Your task to perform on an android device: Open Google Image 0: 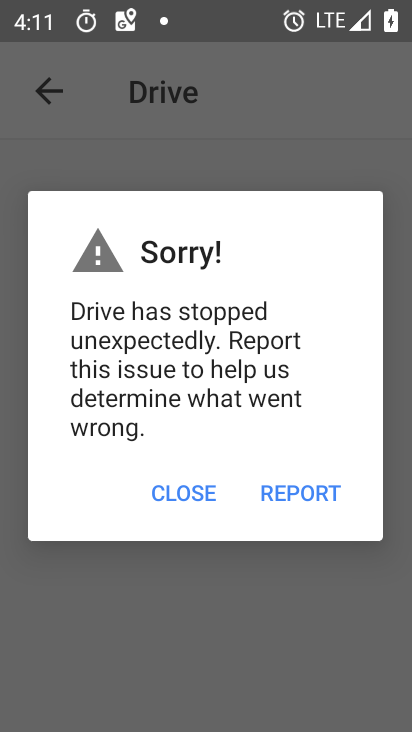
Step 0: click (186, 486)
Your task to perform on an android device: Open Google Image 1: 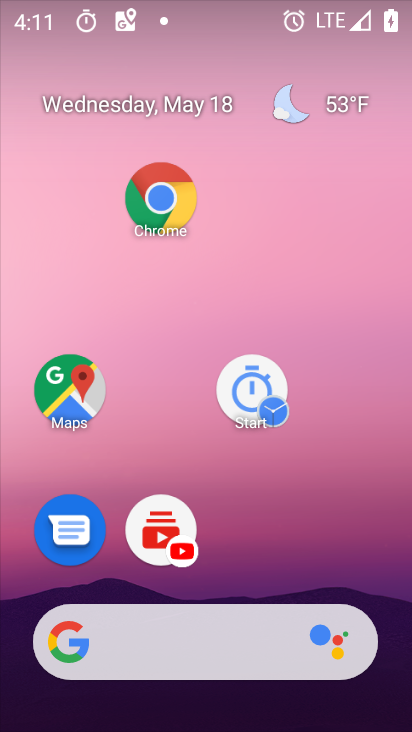
Step 1: drag from (292, 685) to (164, 156)
Your task to perform on an android device: Open Google Image 2: 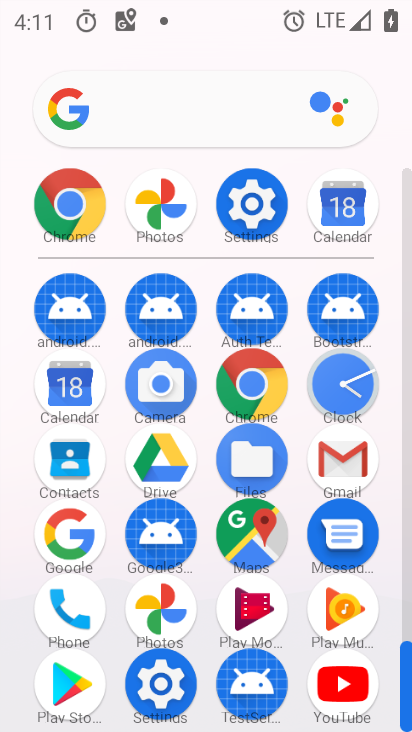
Step 2: click (72, 540)
Your task to perform on an android device: Open Google Image 3: 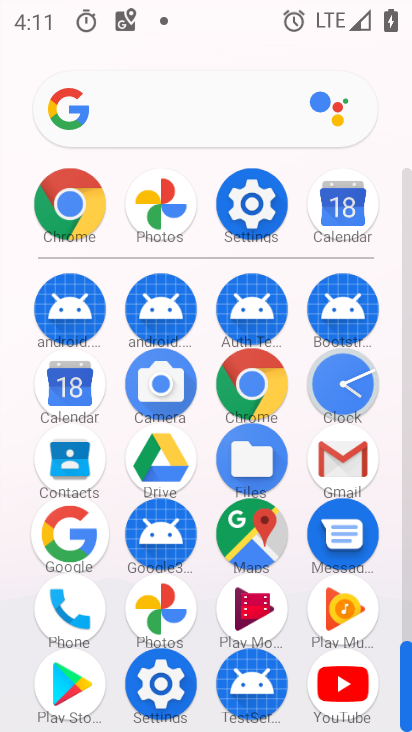
Step 3: click (75, 538)
Your task to perform on an android device: Open Google Image 4: 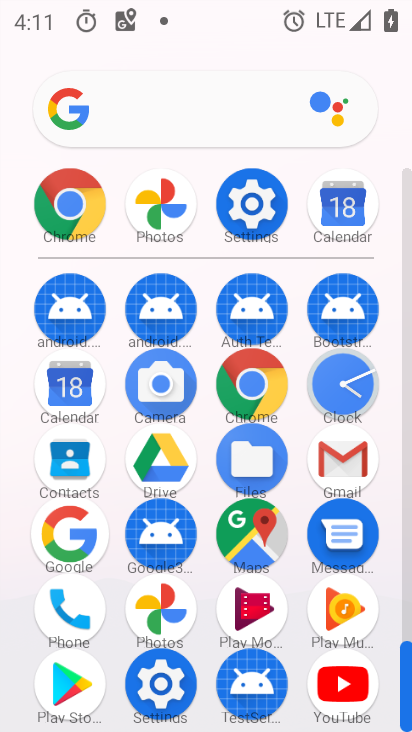
Step 4: click (76, 536)
Your task to perform on an android device: Open Google Image 5: 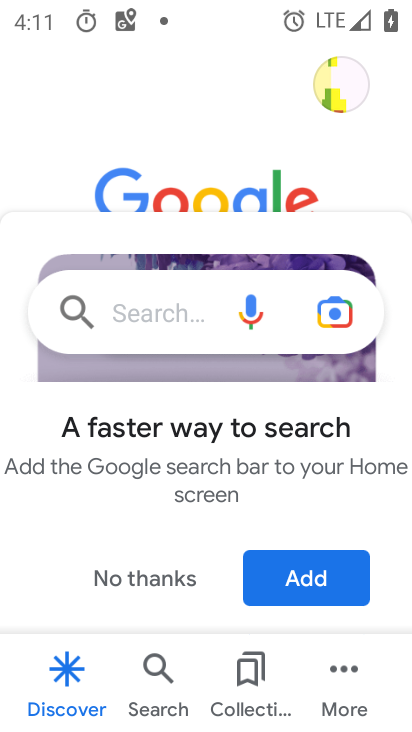
Step 5: drag from (232, 520) to (210, 253)
Your task to perform on an android device: Open Google Image 6: 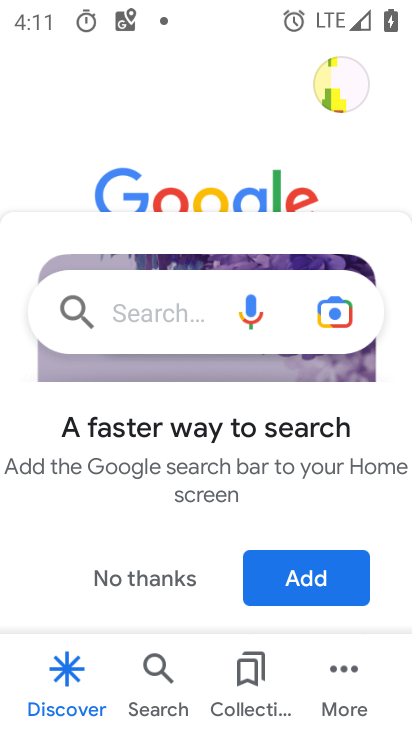
Step 6: drag from (235, 580) to (215, 302)
Your task to perform on an android device: Open Google Image 7: 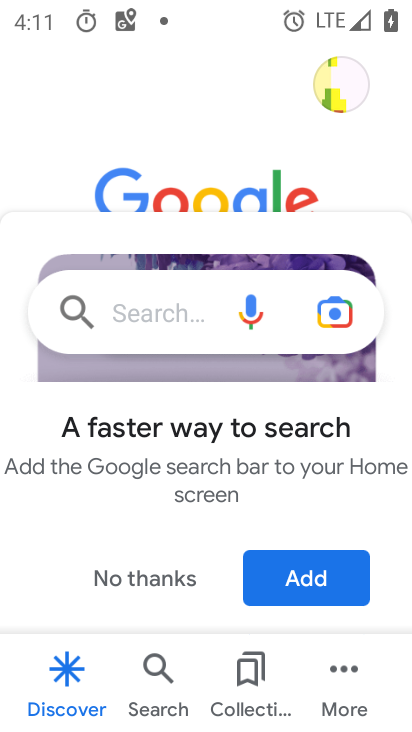
Step 7: drag from (236, 390) to (218, 254)
Your task to perform on an android device: Open Google Image 8: 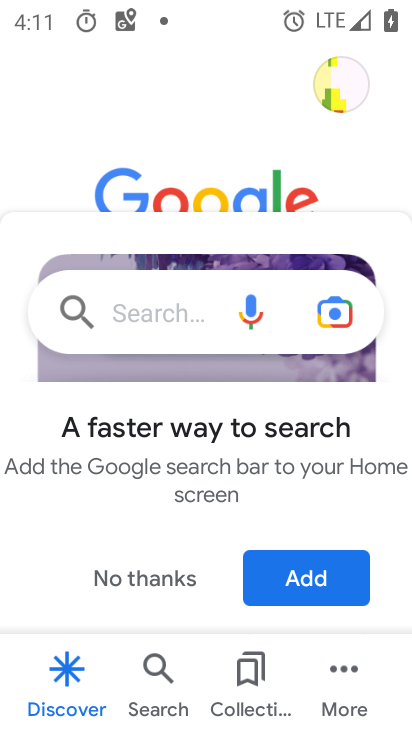
Step 8: drag from (255, 431) to (222, 232)
Your task to perform on an android device: Open Google Image 9: 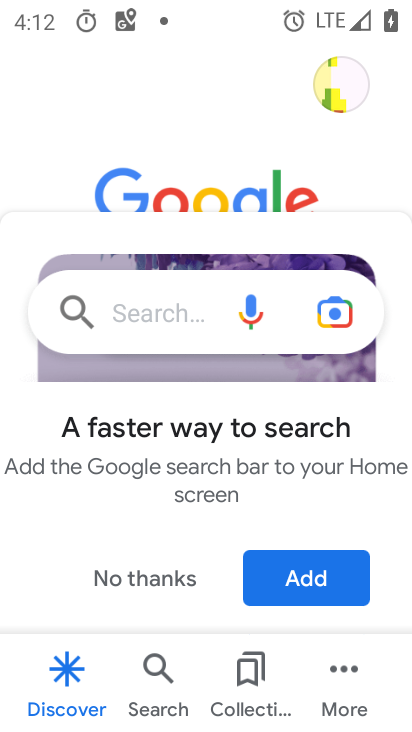
Step 9: click (157, 578)
Your task to perform on an android device: Open Google Image 10: 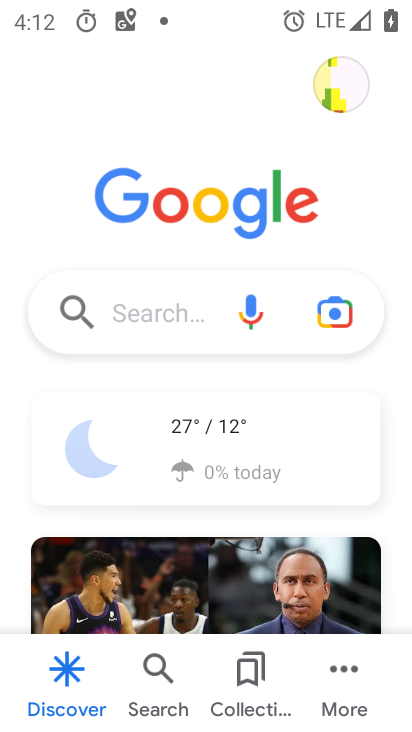
Step 10: task complete